Your task to perform on an android device: empty trash in google photos Image 0: 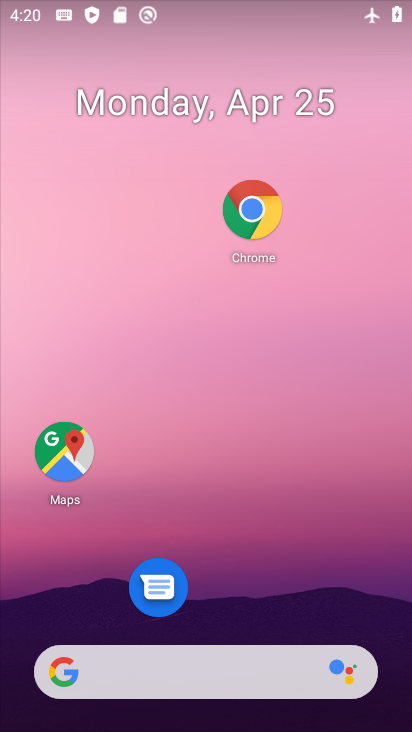
Step 0: drag from (375, 573) to (406, 195)
Your task to perform on an android device: empty trash in google photos Image 1: 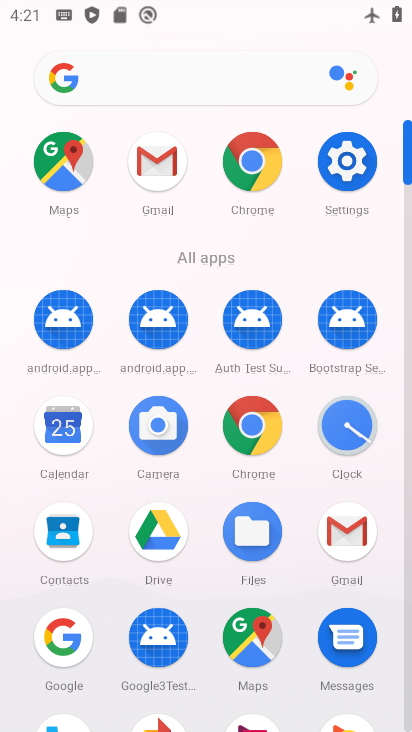
Step 1: click (166, 169)
Your task to perform on an android device: empty trash in google photos Image 2: 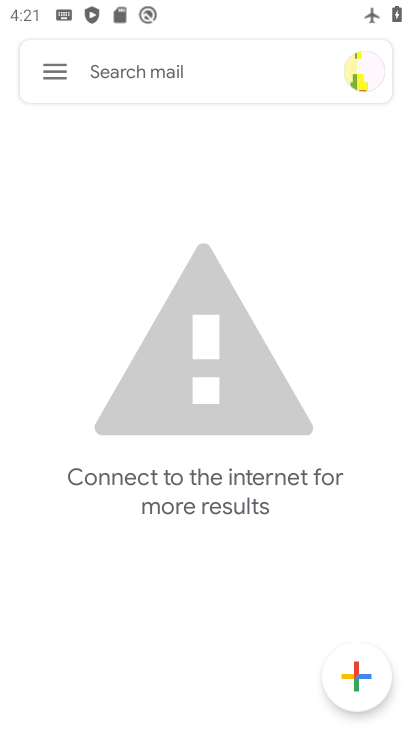
Step 2: press home button
Your task to perform on an android device: empty trash in google photos Image 3: 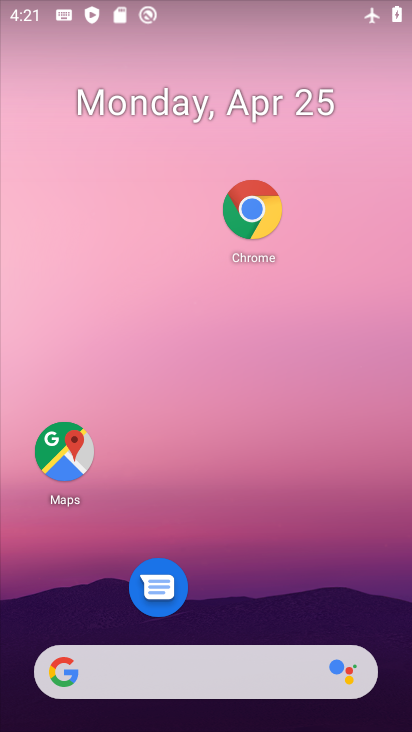
Step 3: drag from (302, 577) to (339, 266)
Your task to perform on an android device: empty trash in google photos Image 4: 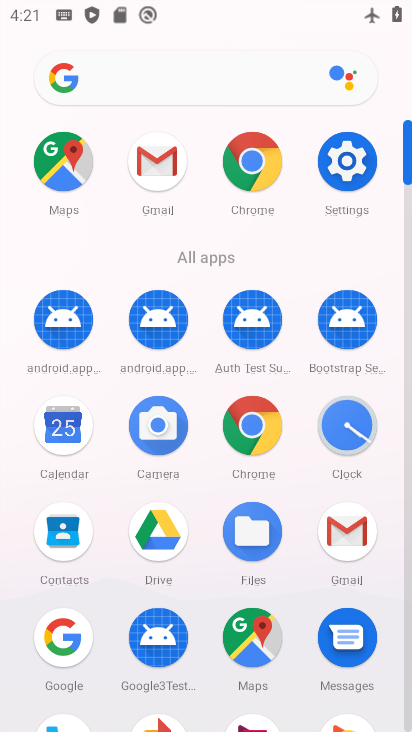
Step 4: click (407, 668)
Your task to perform on an android device: empty trash in google photos Image 5: 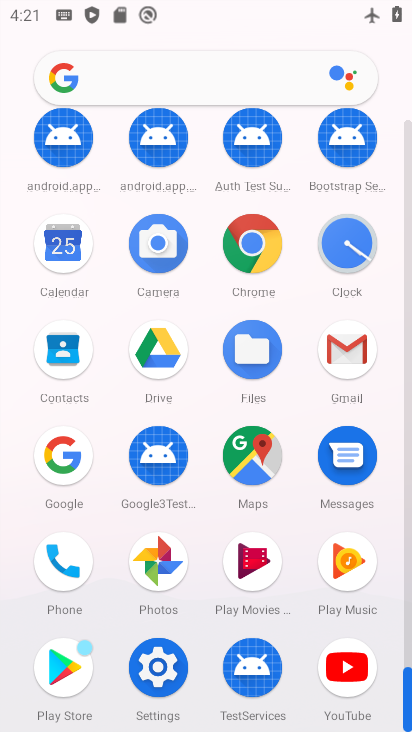
Step 5: click (168, 560)
Your task to perform on an android device: empty trash in google photos Image 6: 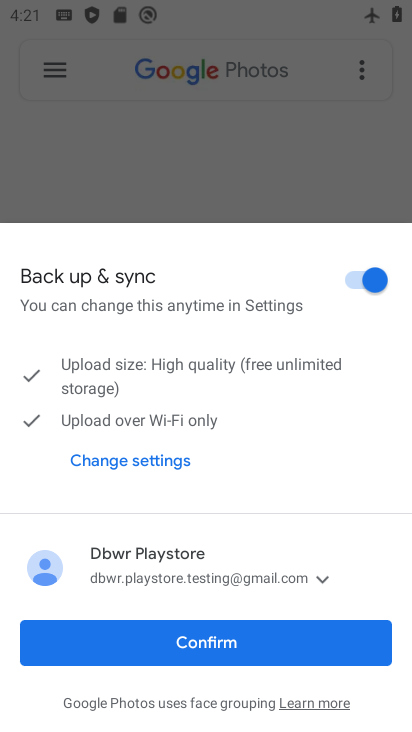
Step 6: click (231, 633)
Your task to perform on an android device: empty trash in google photos Image 7: 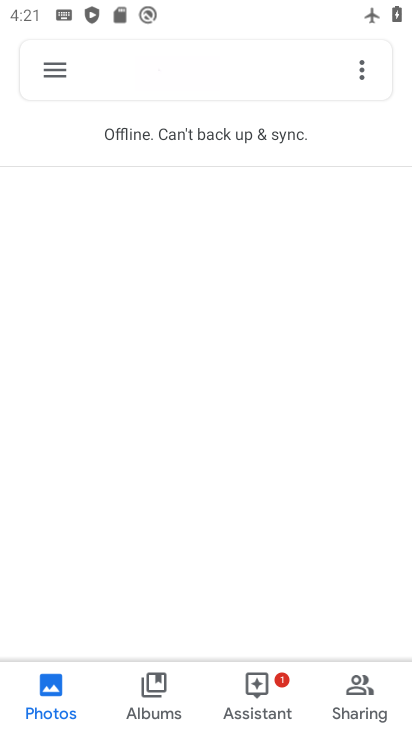
Step 7: click (67, 84)
Your task to perform on an android device: empty trash in google photos Image 8: 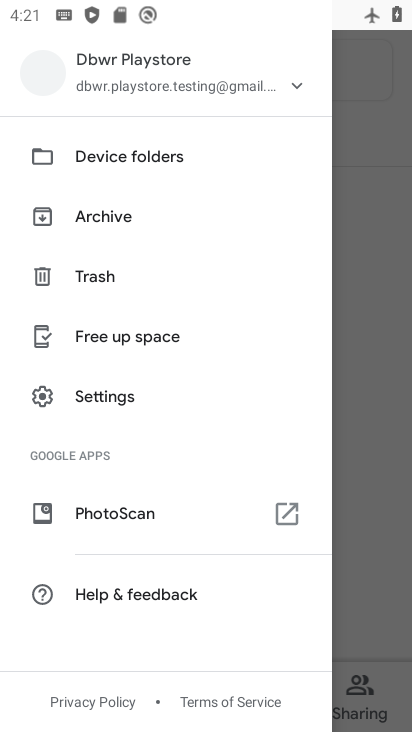
Step 8: click (121, 263)
Your task to perform on an android device: empty trash in google photos Image 9: 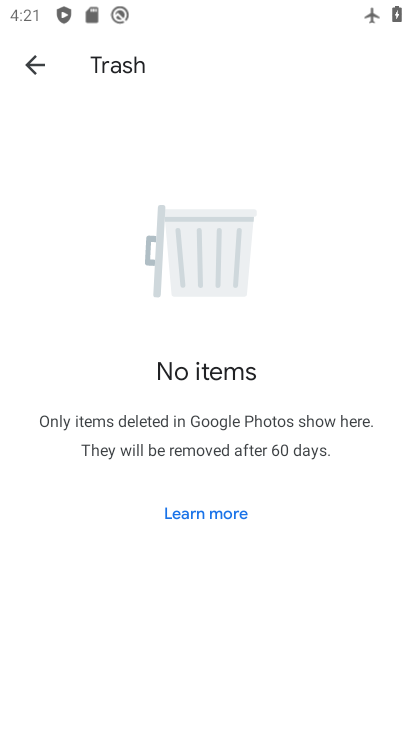
Step 9: task complete